Your task to perform on an android device: When is my next meeting? Image 0: 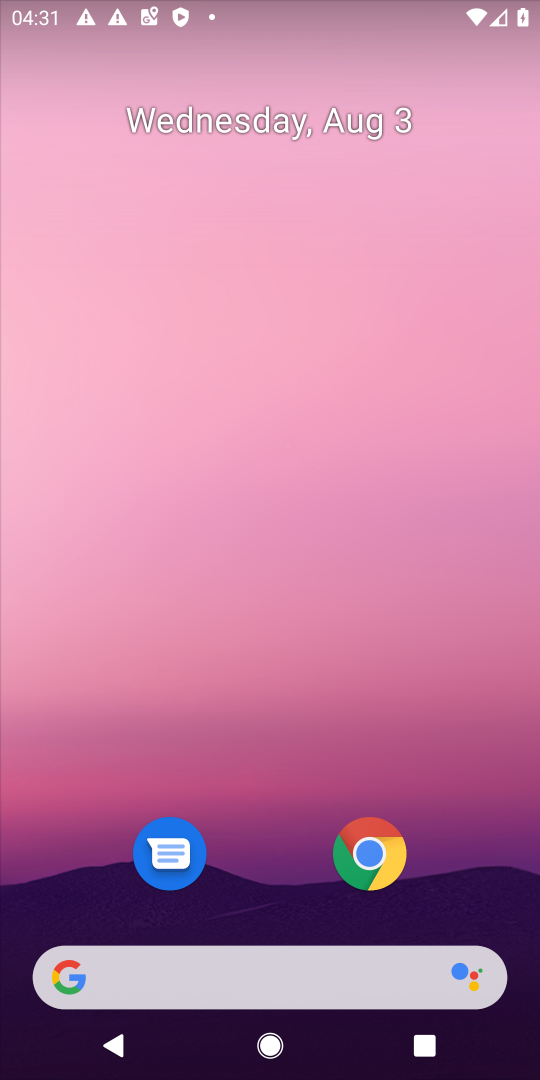
Step 0: drag from (512, 905) to (338, 145)
Your task to perform on an android device: When is my next meeting? Image 1: 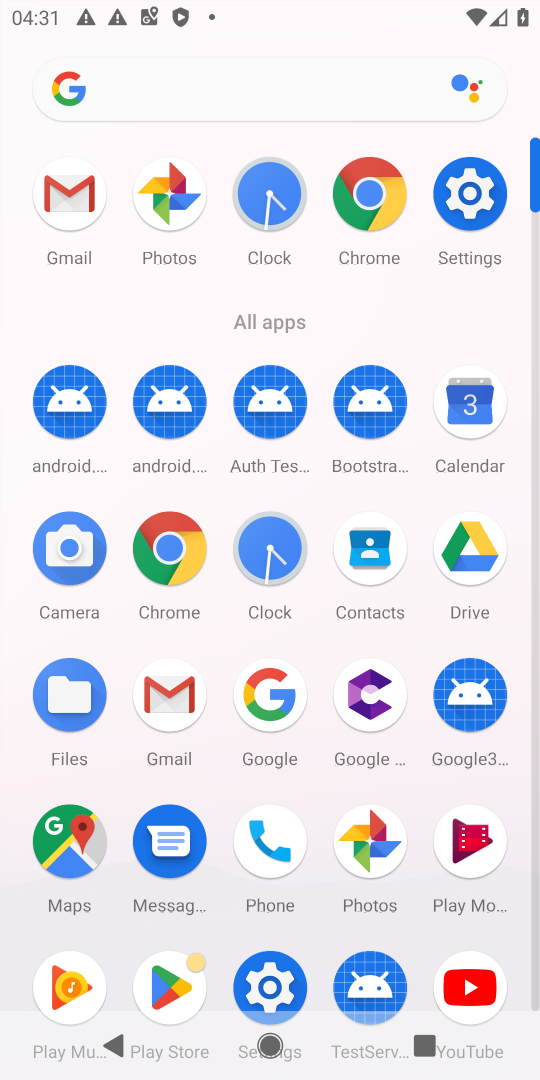
Step 1: click (474, 415)
Your task to perform on an android device: When is my next meeting? Image 2: 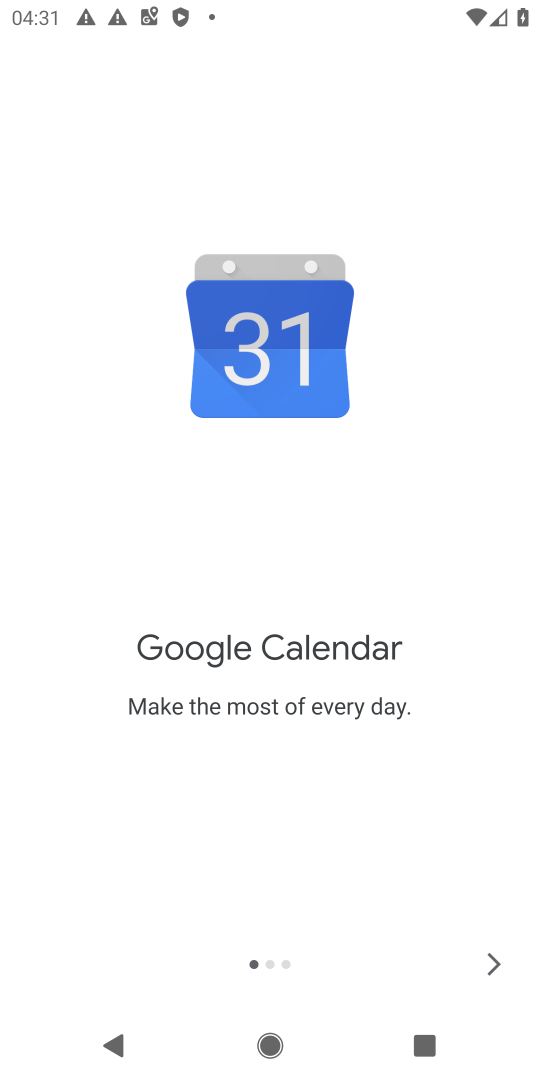
Step 2: click (504, 971)
Your task to perform on an android device: When is my next meeting? Image 3: 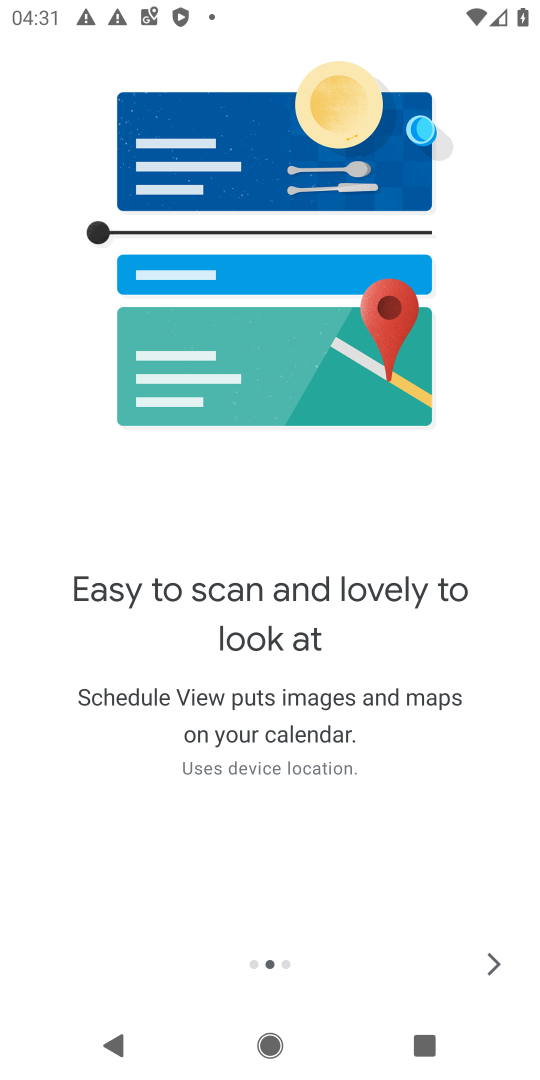
Step 3: click (504, 971)
Your task to perform on an android device: When is my next meeting? Image 4: 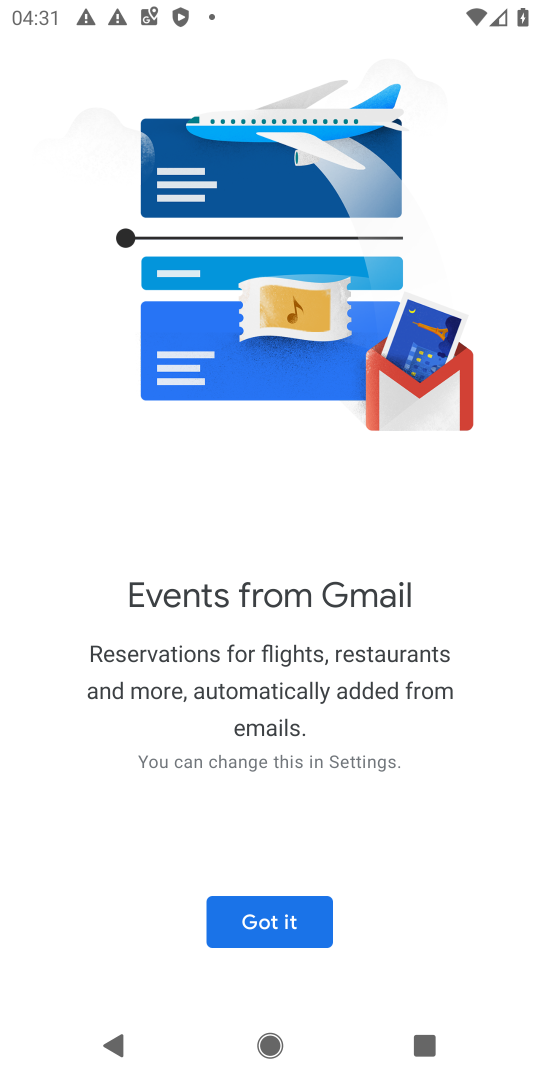
Step 4: click (237, 917)
Your task to perform on an android device: When is my next meeting? Image 5: 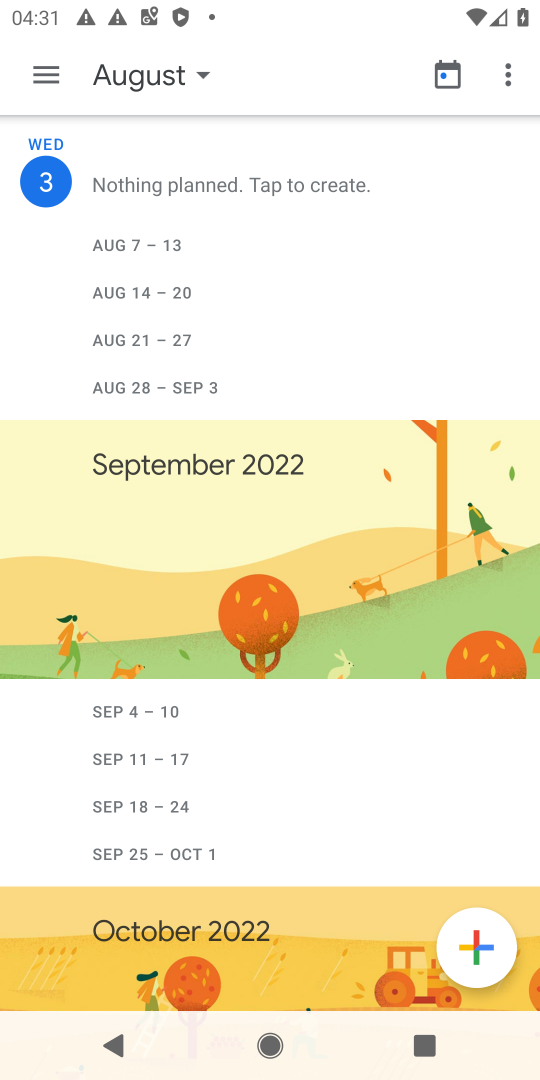
Step 5: task complete